Your task to perform on an android device: When is my next appointment? Image 0: 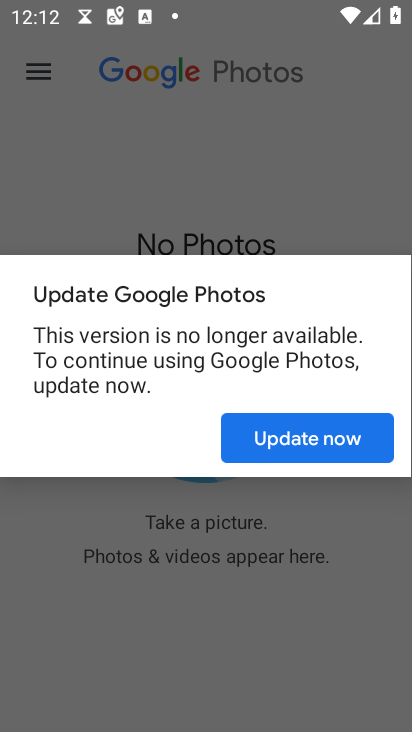
Step 0: press home button
Your task to perform on an android device: When is my next appointment? Image 1: 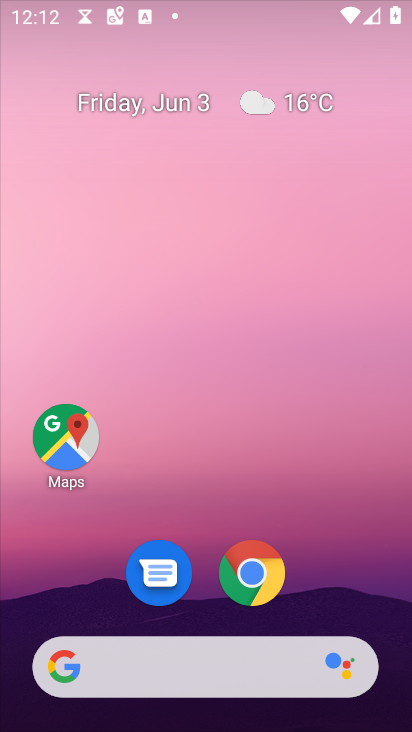
Step 1: drag from (357, 562) to (100, 6)
Your task to perform on an android device: When is my next appointment? Image 2: 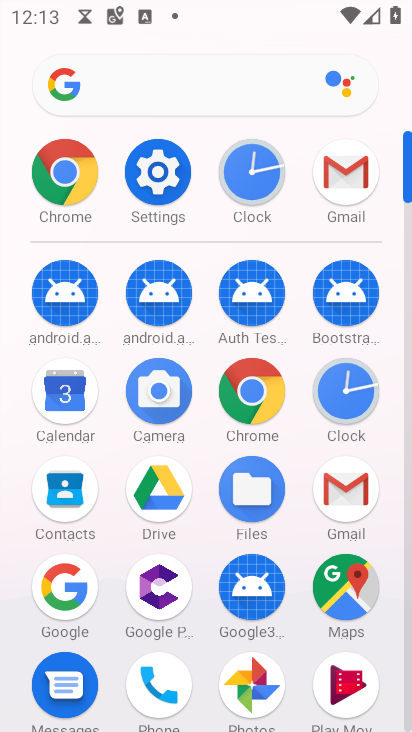
Step 2: click (70, 398)
Your task to perform on an android device: When is my next appointment? Image 3: 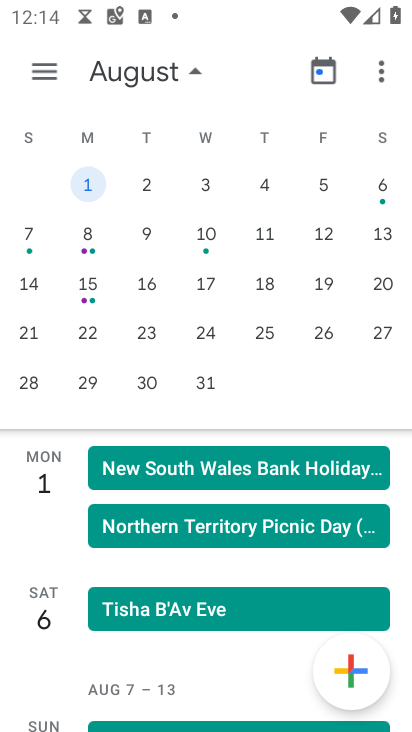
Step 3: click (394, 188)
Your task to perform on an android device: When is my next appointment? Image 4: 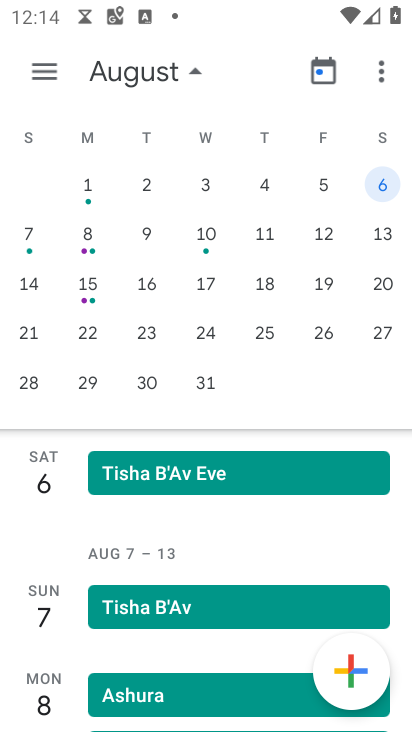
Step 4: task complete